Your task to perform on an android device: add a label to a message in the gmail app Image 0: 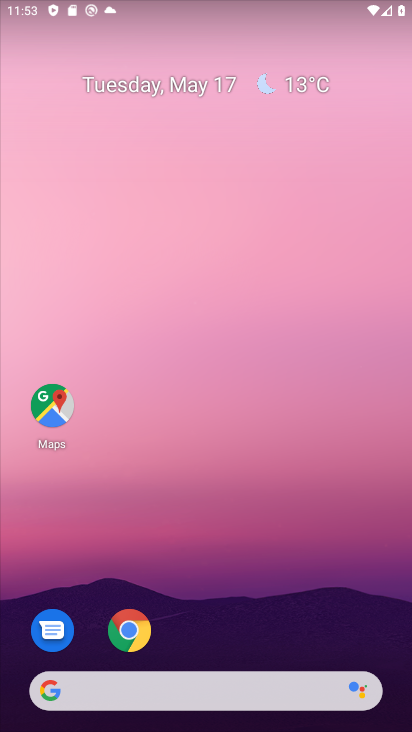
Step 0: drag from (192, 724) to (192, 101)
Your task to perform on an android device: add a label to a message in the gmail app Image 1: 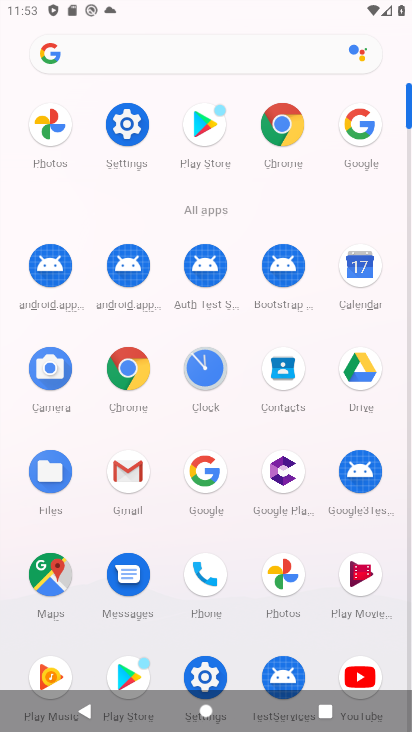
Step 1: click (131, 466)
Your task to perform on an android device: add a label to a message in the gmail app Image 2: 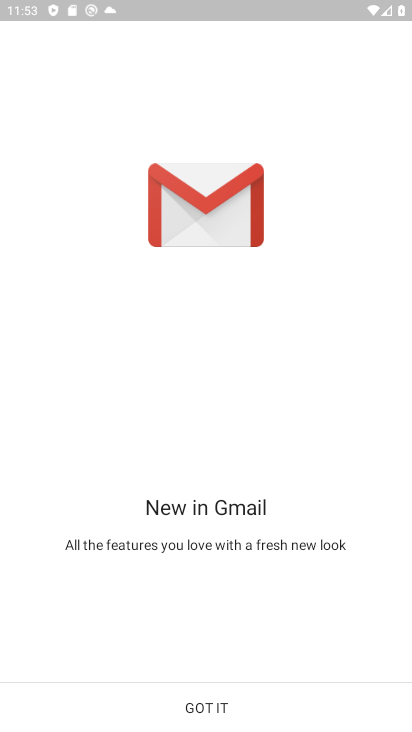
Step 2: click (212, 705)
Your task to perform on an android device: add a label to a message in the gmail app Image 3: 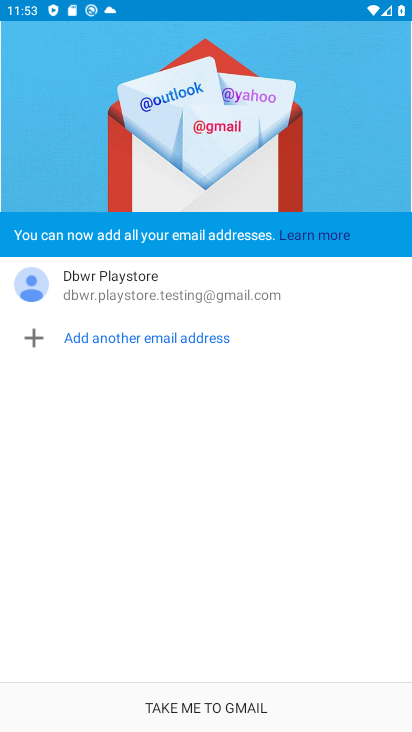
Step 3: click (194, 708)
Your task to perform on an android device: add a label to a message in the gmail app Image 4: 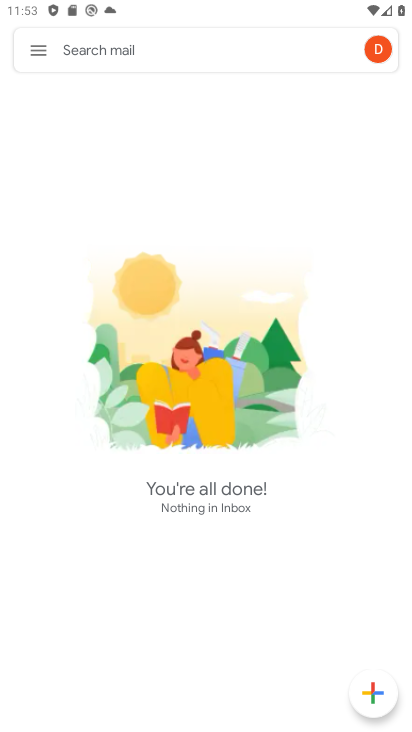
Step 4: task complete